Your task to perform on an android device: Open Google Image 0: 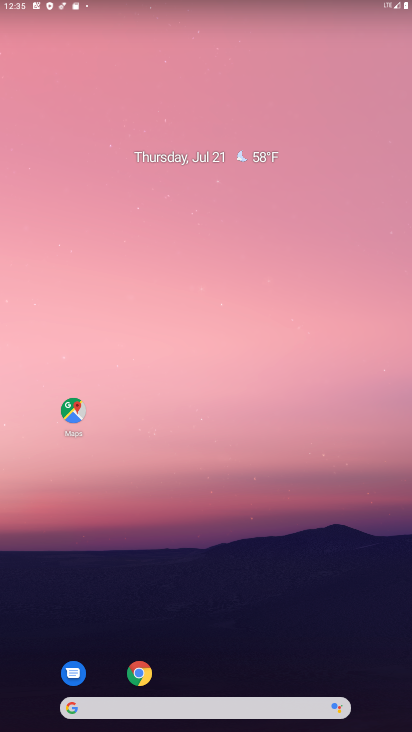
Step 0: drag from (173, 396) to (173, 218)
Your task to perform on an android device: Open Google Image 1: 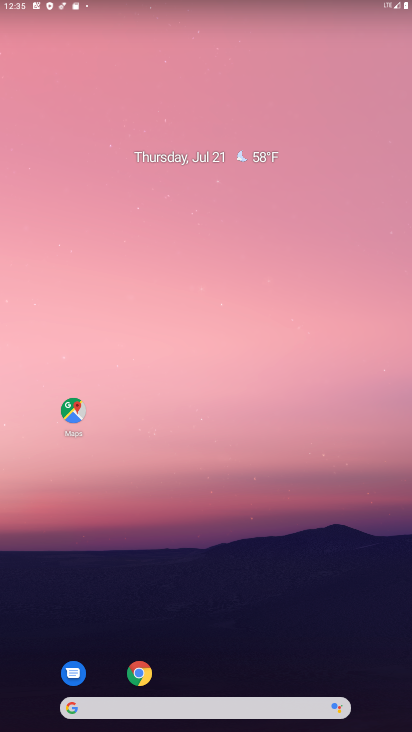
Step 1: drag from (227, 587) to (275, 91)
Your task to perform on an android device: Open Google Image 2: 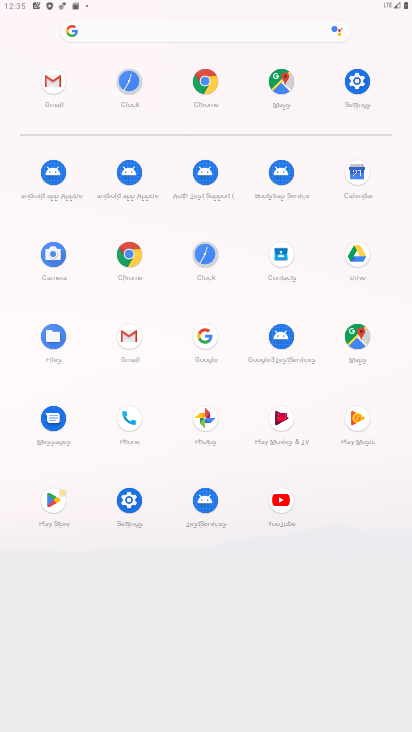
Step 2: click (200, 337)
Your task to perform on an android device: Open Google Image 3: 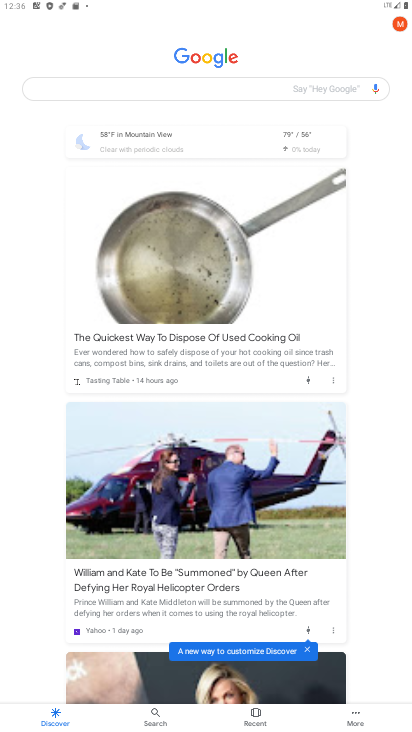
Step 3: task complete